Your task to perform on an android device: turn off smart reply in the gmail app Image 0: 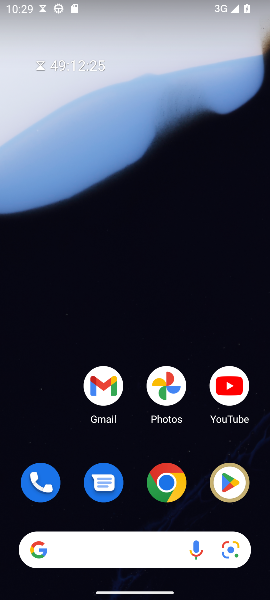
Step 0: drag from (168, 508) to (122, 34)
Your task to perform on an android device: turn off smart reply in the gmail app Image 1: 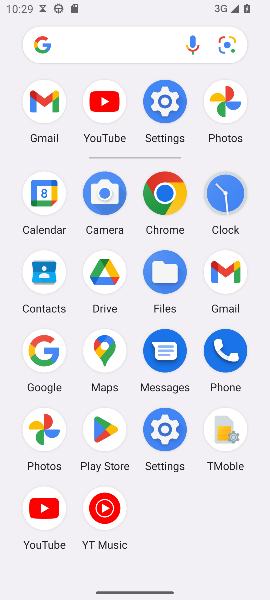
Step 1: click (51, 93)
Your task to perform on an android device: turn off smart reply in the gmail app Image 2: 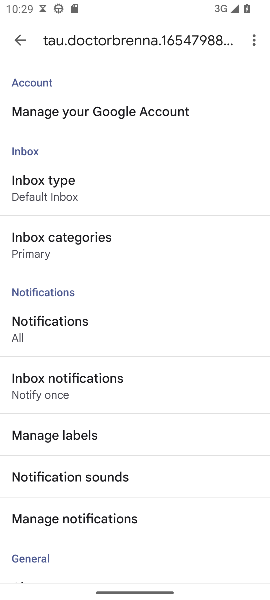
Step 2: drag from (122, 512) to (32, 158)
Your task to perform on an android device: turn off smart reply in the gmail app Image 3: 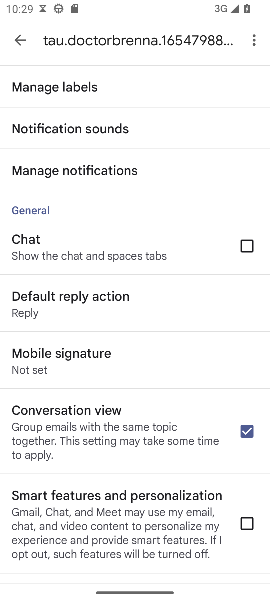
Step 3: drag from (173, 530) to (81, 294)
Your task to perform on an android device: turn off smart reply in the gmail app Image 4: 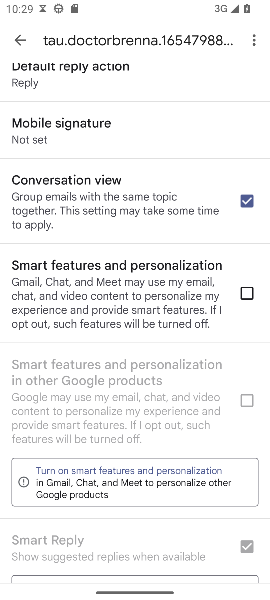
Step 4: drag from (161, 516) to (68, 162)
Your task to perform on an android device: turn off smart reply in the gmail app Image 5: 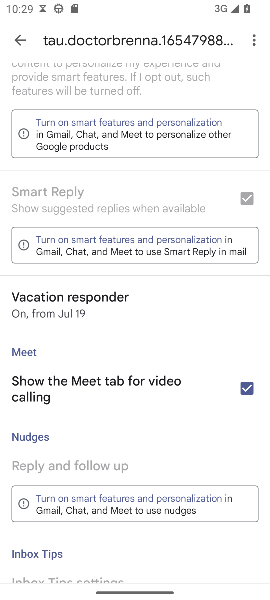
Step 5: drag from (122, 393) to (75, 164)
Your task to perform on an android device: turn off smart reply in the gmail app Image 6: 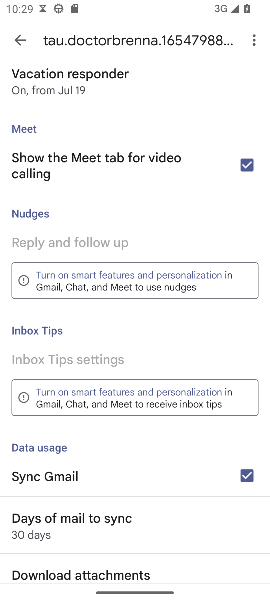
Step 6: drag from (143, 453) to (97, 194)
Your task to perform on an android device: turn off smart reply in the gmail app Image 7: 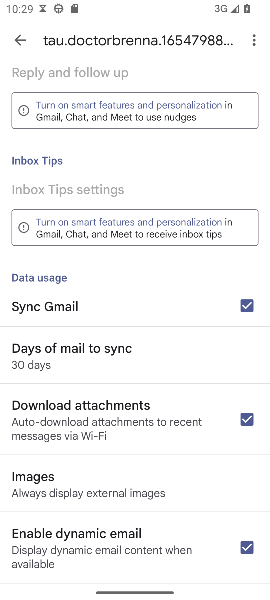
Step 7: drag from (101, 187) to (187, 470)
Your task to perform on an android device: turn off smart reply in the gmail app Image 8: 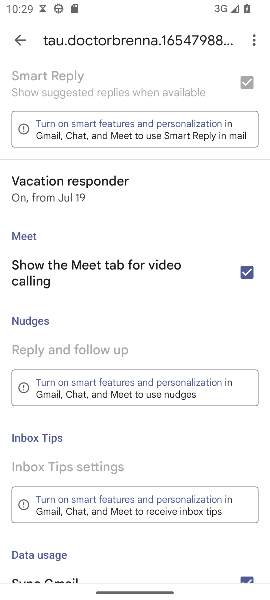
Step 8: drag from (107, 232) to (164, 499)
Your task to perform on an android device: turn off smart reply in the gmail app Image 9: 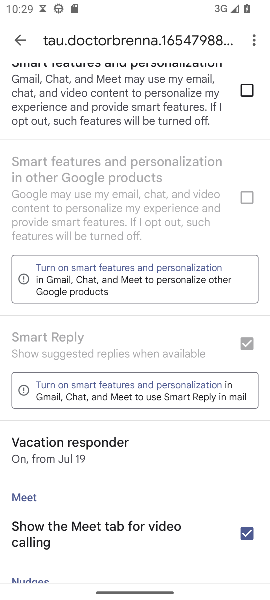
Step 9: click (199, 459)
Your task to perform on an android device: turn off smart reply in the gmail app Image 10: 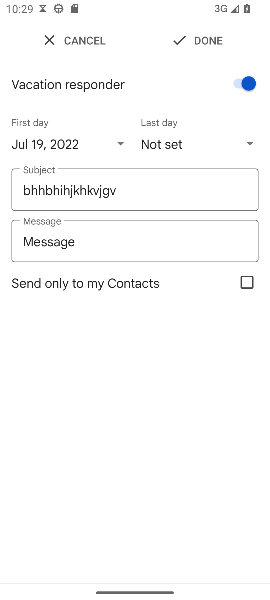
Step 10: click (44, 43)
Your task to perform on an android device: turn off smart reply in the gmail app Image 11: 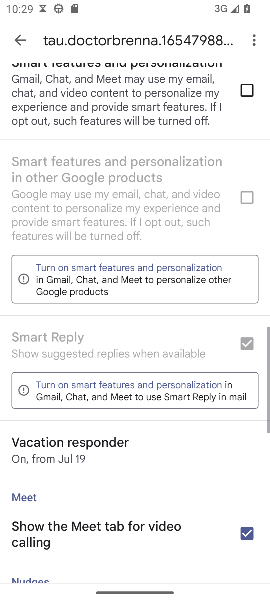
Step 11: task complete